Your task to perform on an android device: empty trash in google photos Image 0: 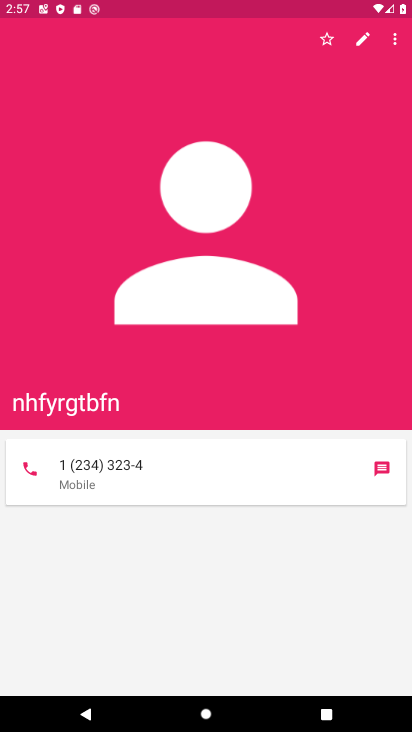
Step 0: press home button
Your task to perform on an android device: empty trash in google photos Image 1: 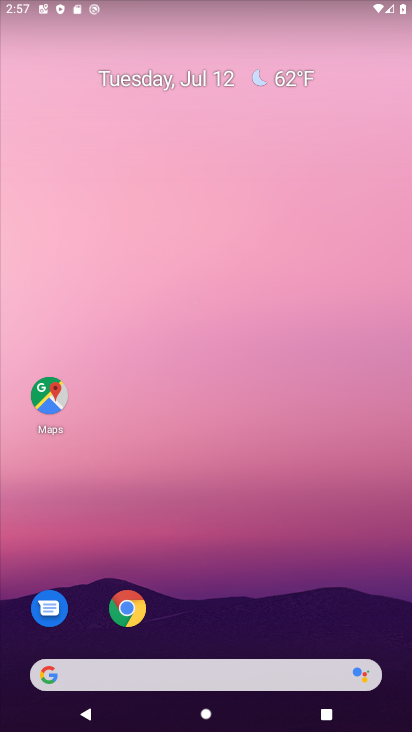
Step 1: drag from (199, 667) to (367, 95)
Your task to perform on an android device: empty trash in google photos Image 2: 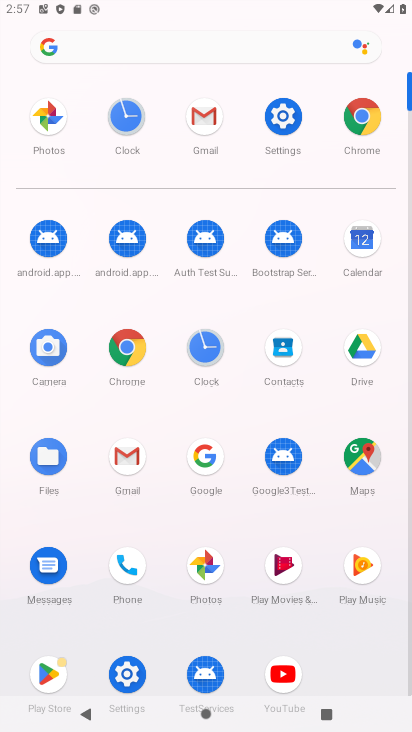
Step 2: click (209, 560)
Your task to perform on an android device: empty trash in google photos Image 3: 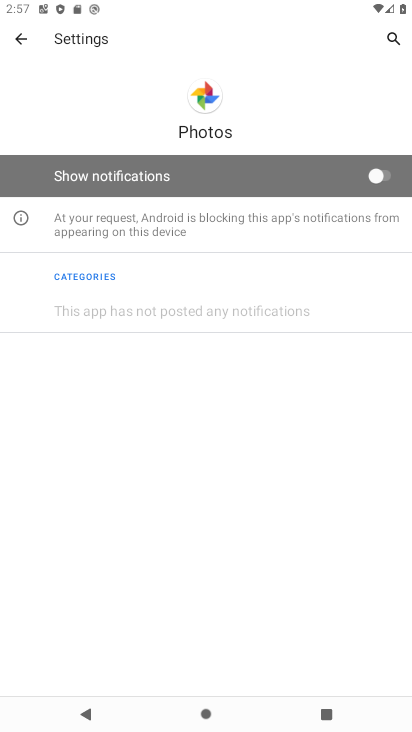
Step 3: click (22, 37)
Your task to perform on an android device: empty trash in google photos Image 4: 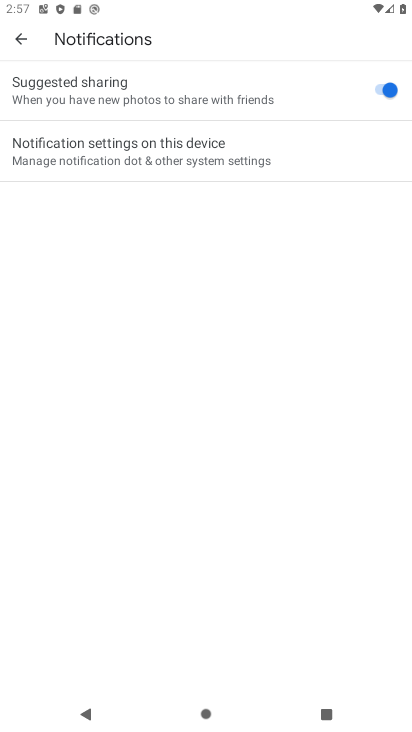
Step 4: click (20, 35)
Your task to perform on an android device: empty trash in google photos Image 5: 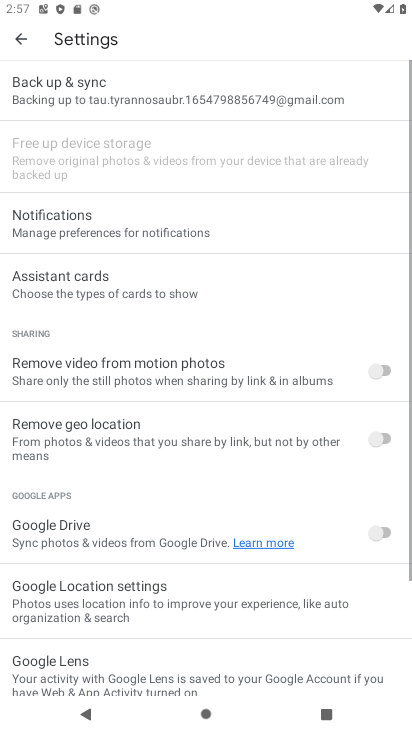
Step 5: click (20, 35)
Your task to perform on an android device: empty trash in google photos Image 6: 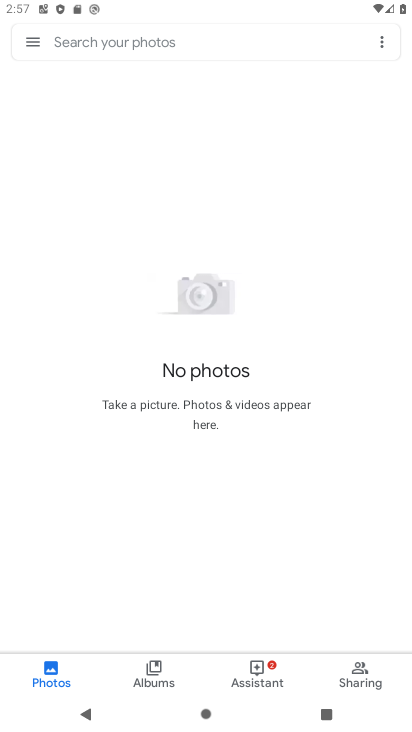
Step 6: click (37, 38)
Your task to perform on an android device: empty trash in google photos Image 7: 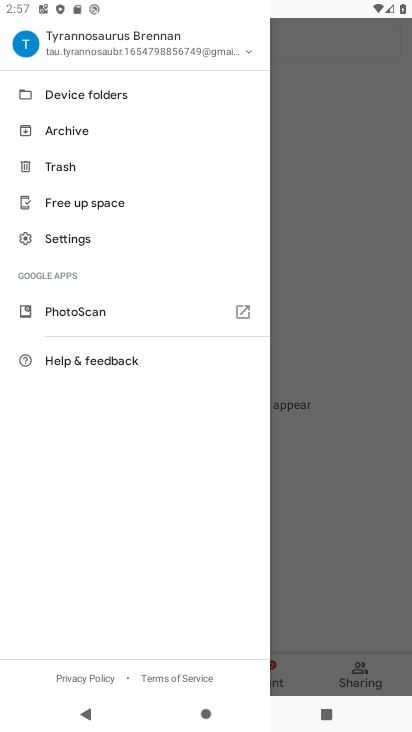
Step 7: click (73, 166)
Your task to perform on an android device: empty trash in google photos Image 8: 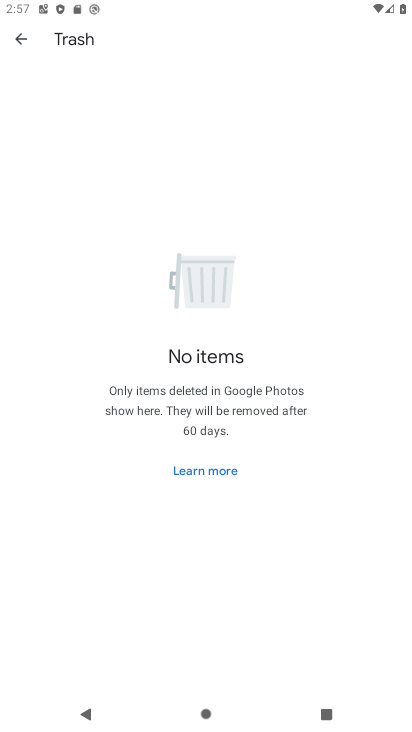
Step 8: task complete